Your task to perform on an android device: star an email in the gmail app Image 0: 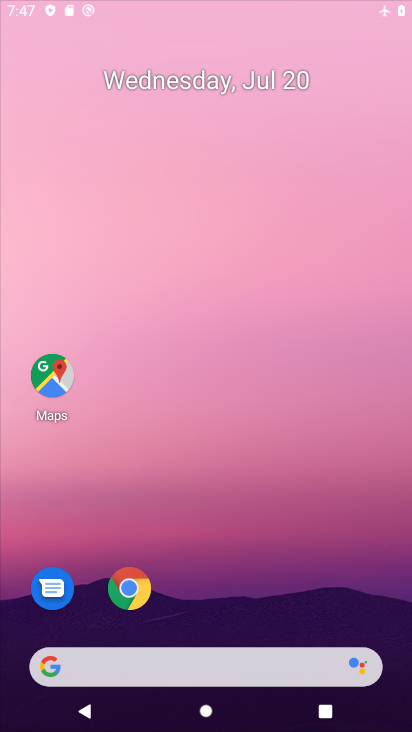
Step 0: click (225, 325)
Your task to perform on an android device: star an email in the gmail app Image 1: 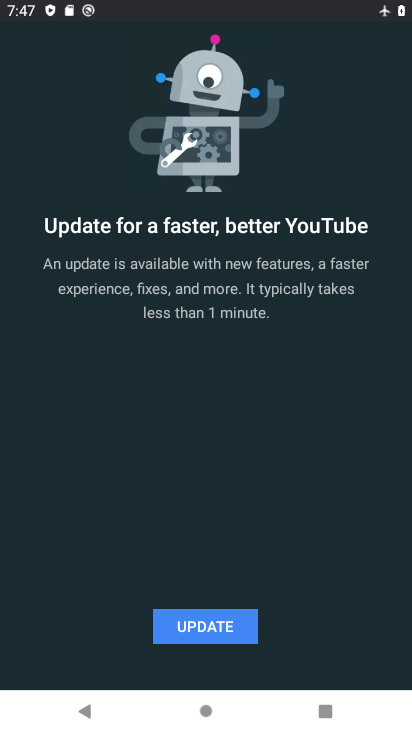
Step 1: press home button
Your task to perform on an android device: star an email in the gmail app Image 2: 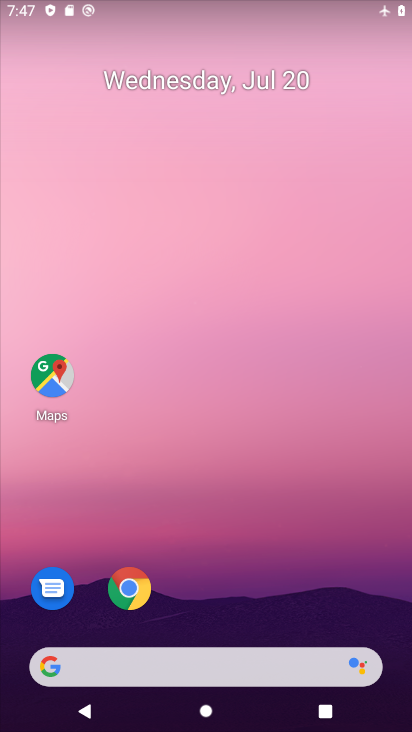
Step 2: drag from (20, 700) to (235, 121)
Your task to perform on an android device: star an email in the gmail app Image 3: 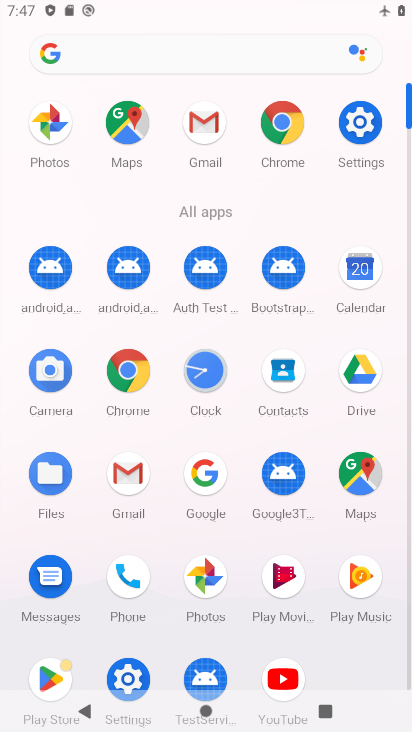
Step 3: click (130, 476)
Your task to perform on an android device: star an email in the gmail app Image 4: 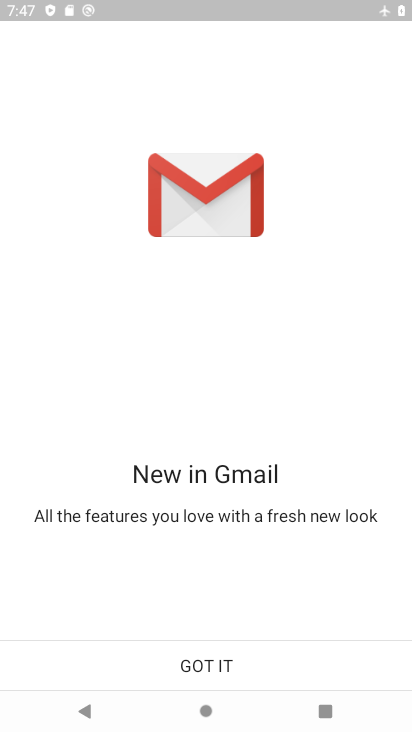
Step 4: click (185, 663)
Your task to perform on an android device: star an email in the gmail app Image 5: 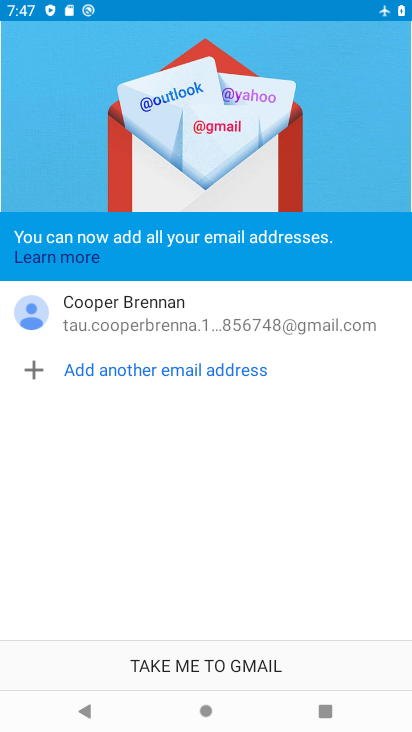
Step 5: click (181, 674)
Your task to perform on an android device: star an email in the gmail app Image 6: 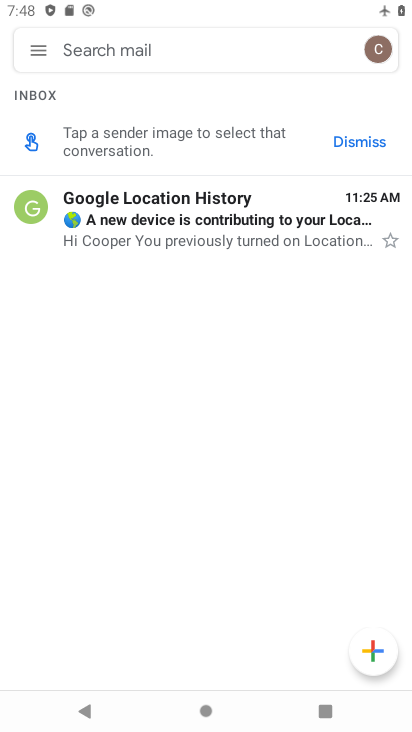
Step 6: click (27, 49)
Your task to perform on an android device: star an email in the gmail app Image 7: 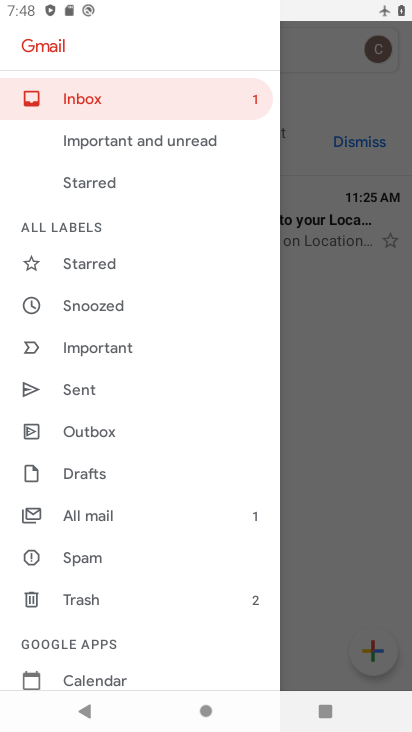
Step 7: click (96, 257)
Your task to perform on an android device: star an email in the gmail app Image 8: 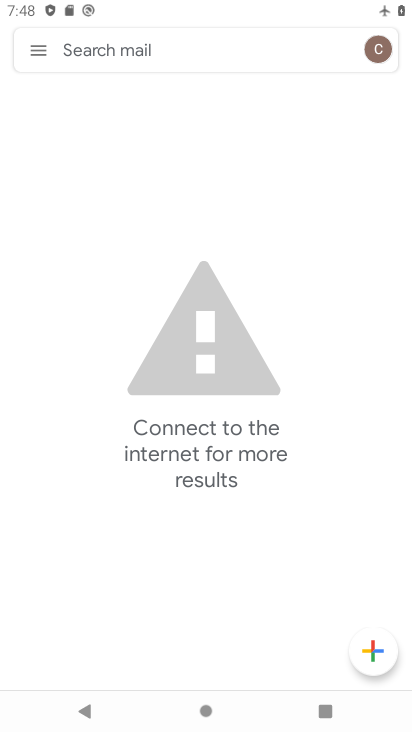
Step 8: task complete